Your task to perform on an android device: Search for vegetarian restaurants on Maps Image 0: 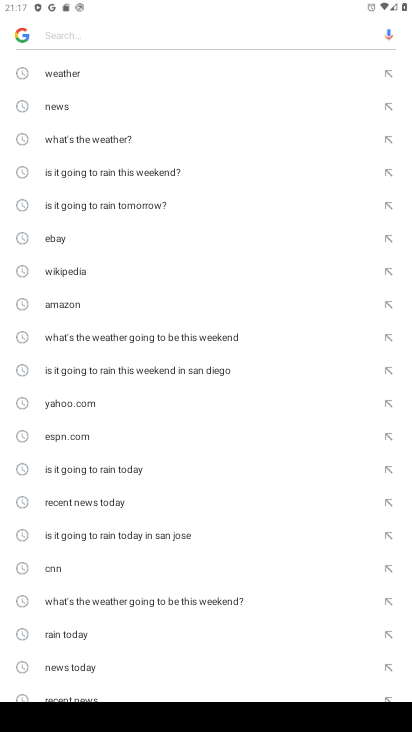
Step 0: press home button
Your task to perform on an android device: Search for vegetarian restaurants on Maps Image 1: 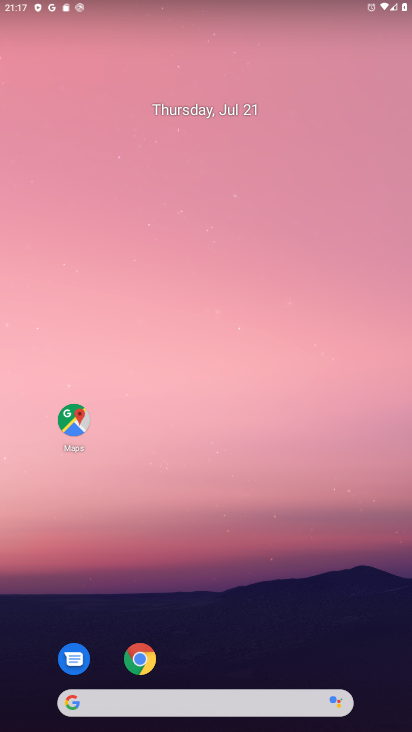
Step 1: click (63, 378)
Your task to perform on an android device: Search for vegetarian restaurants on Maps Image 2: 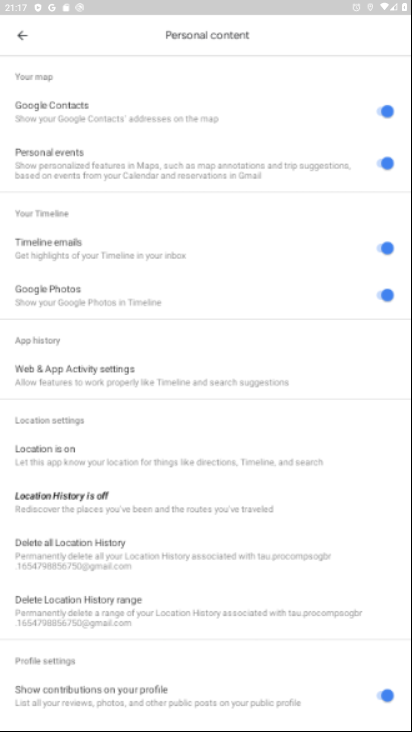
Step 2: click (63, 413)
Your task to perform on an android device: Search for vegetarian restaurants on Maps Image 3: 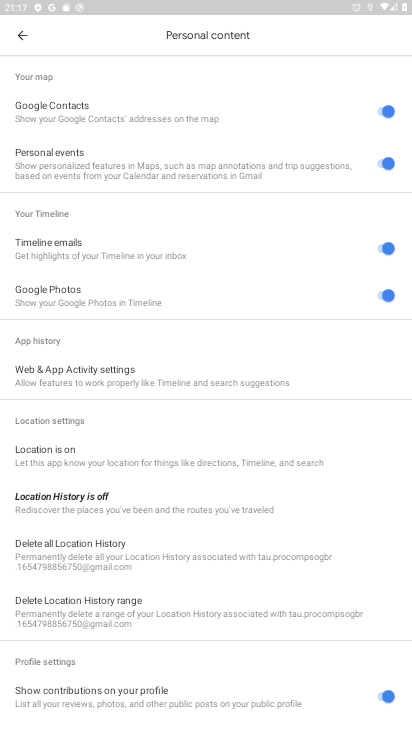
Step 3: click (24, 34)
Your task to perform on an android device: Search for vegetarian restaurants on Maps Image 4: 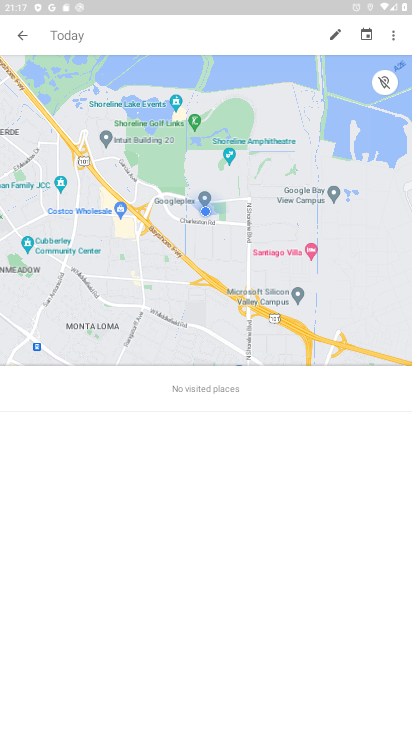
Step 4: click (24, 34)
Your task to perform on an android device: Search for vegetarian restaurants on Maps Image 5: 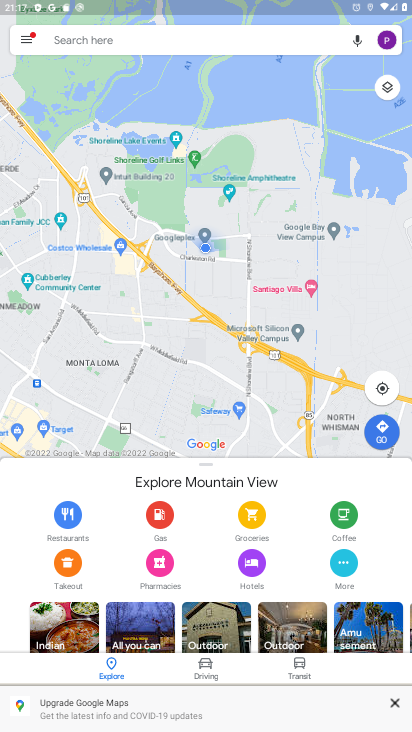
Step 5: click (178, 36)
Your task to perform on an android device: Search for vegetarian restaurants on Maps Image 6: 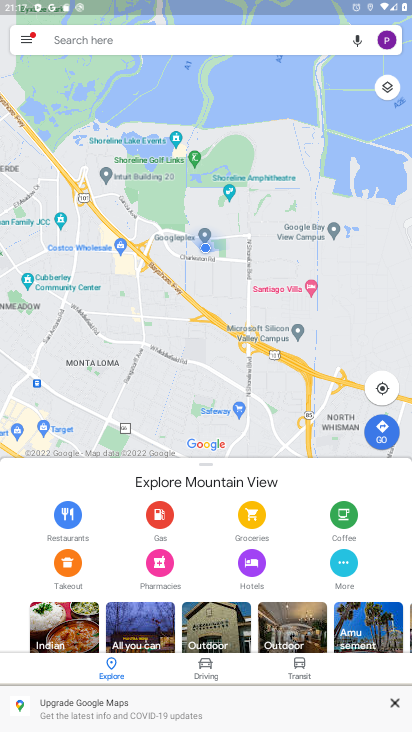
Step 6: click (178, 36)
Your task to perform on an android device: Search for vegetarian restaurants on Maps Image 7: 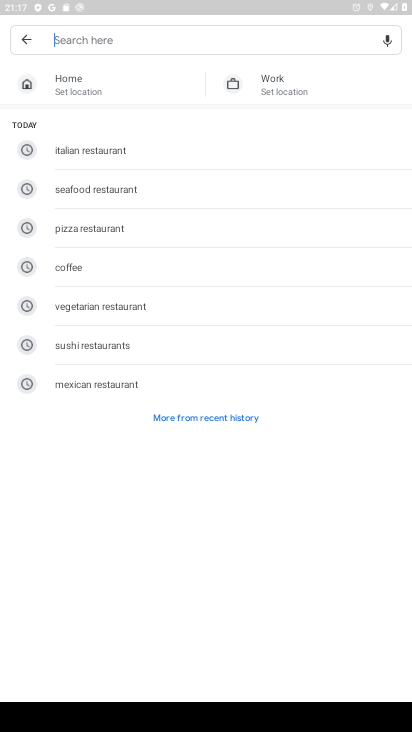
Step 7: type " vegetarian restaurants"
Your task to perform on an android device: Search for vegetarian restaurants on Maps Image 8: 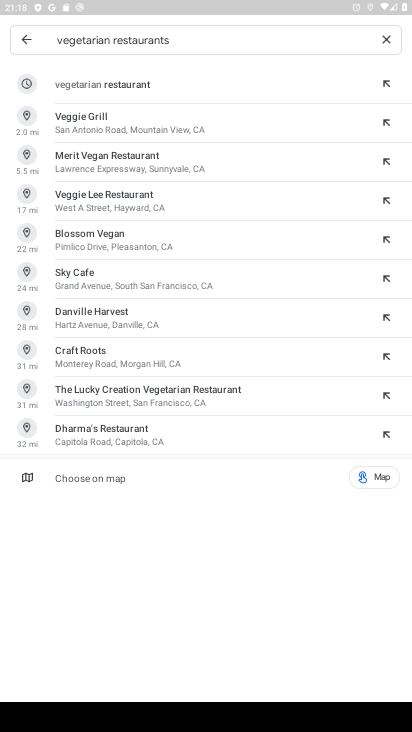
Step 8: type " vegetarian restaurants"
Your task to perform on an android device: Search for vegetarian restaurants on Maps Image 9: 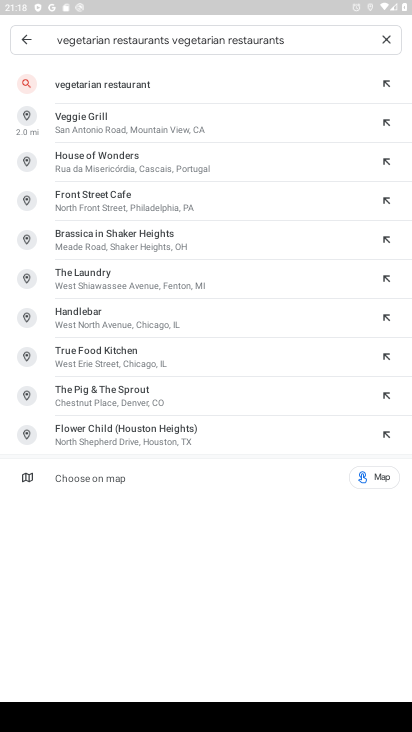
Step 9: click (389, 37)
Your task to perform on an android device: Search for vegetarian restaurants on Maps Image 10: 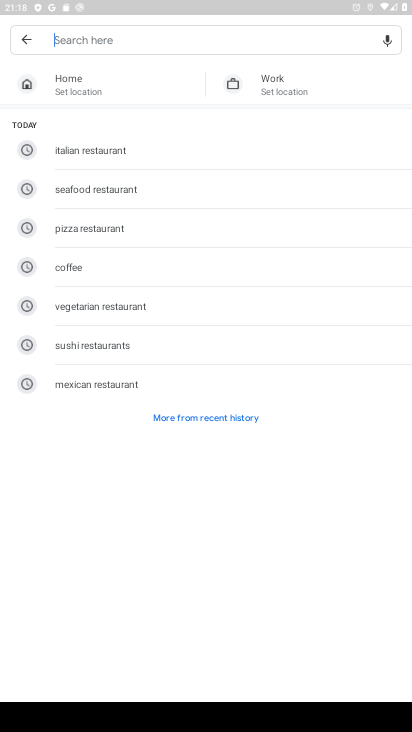
Step 10: type " vegetarian restaurants"
Your task to perform on an android device: Search for vegetarian restaurants on Maps Image 11: 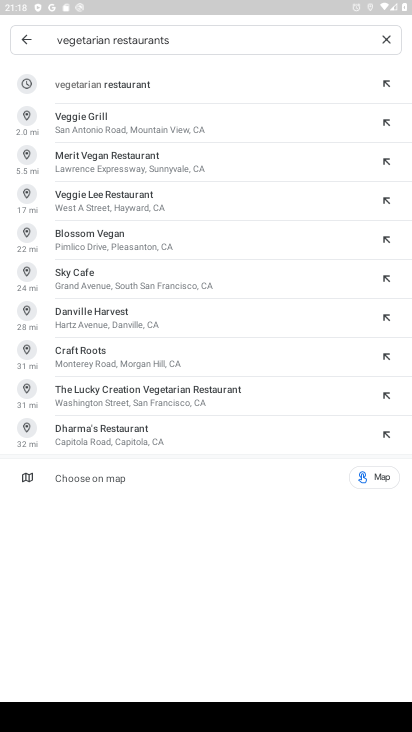
Step 11: click (210, 88)
Your task to perform on an android device: Search for vegetarian restaurants on Maps Image 12: 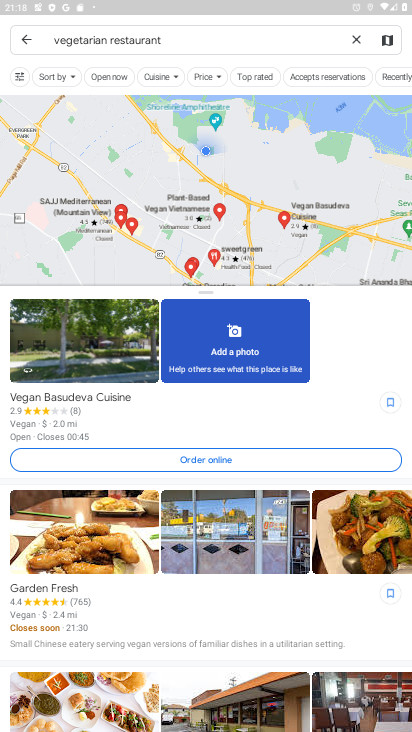
Step 12: task complete